Your task to perform on an android device: snooze an email in the gmail app Image 0: 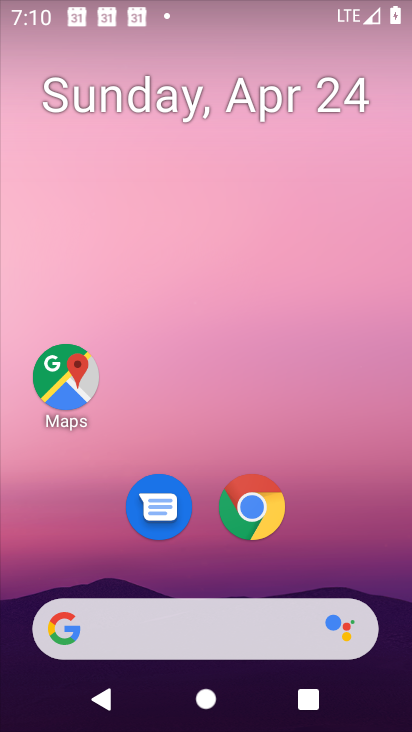
Step 0: drag from (311, 287) to (311, 102)
Your task to perform on an android device: snooze an email in the gmail app Image 1: 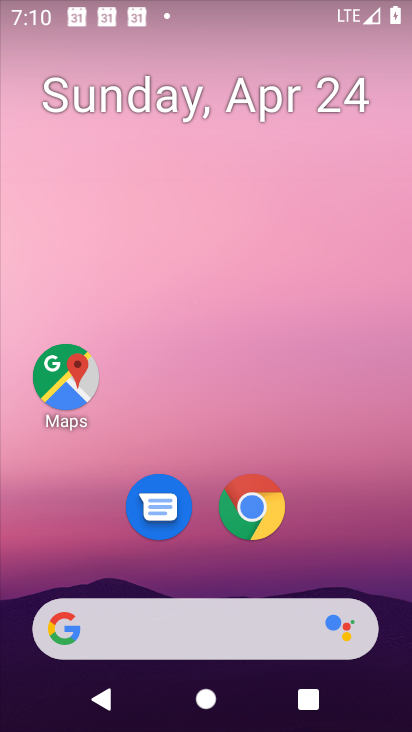
Step 1: drag from (355, 529) to (335, 52)
Your task to perform on an android device: snooze an email in the gmail app Image 2: 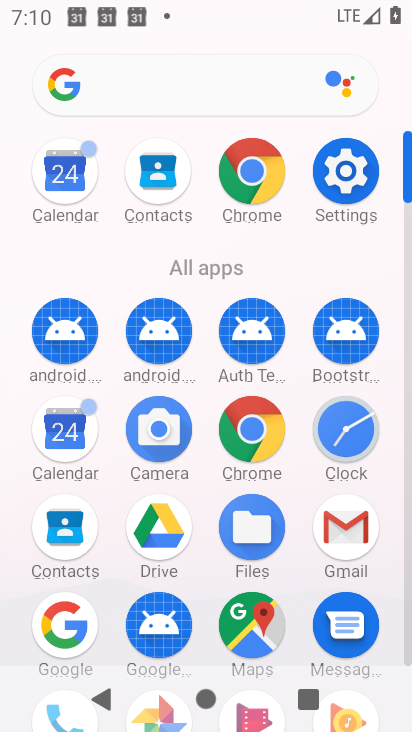
Step 2: click (369, 534)
Your task to perform on an android device: snooze an email in the gmail app Image 3: 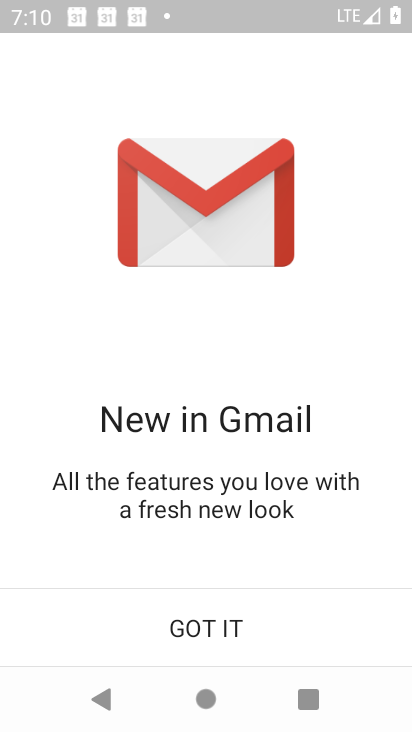
Step 3: click (206, 635)
Your task to perform on an android device: snooze an email in the gmail app Image 4: 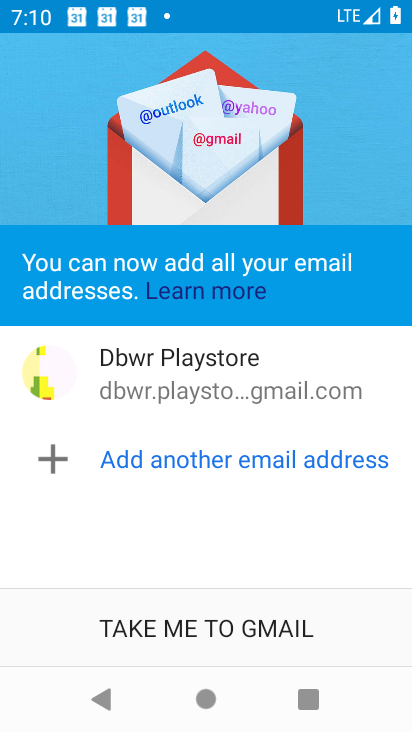
Step 4: click (206, 635)
Your task to perform on an android device: snooze an email in the gmail app Image 5: 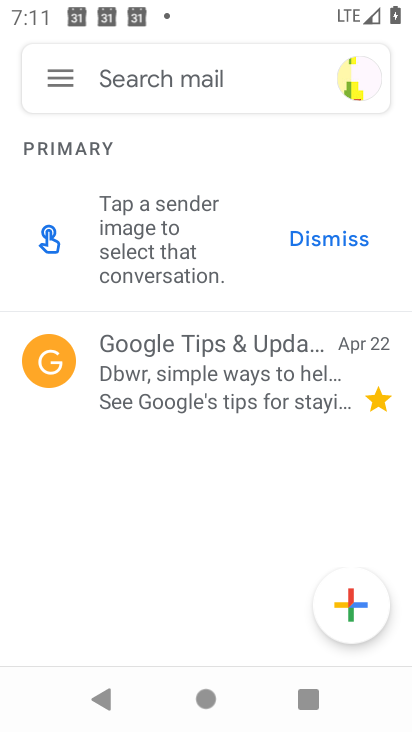
Step 5: task complete